Your task to perform on an android device: Go to sound settings Image 0: 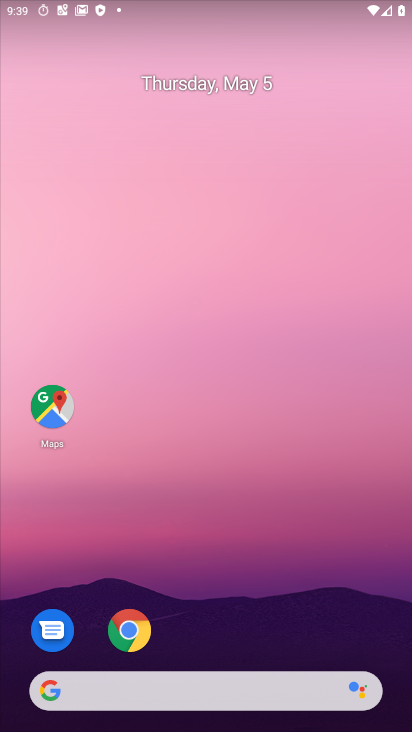
Step 0: drag from (207, 507) to (77, 162)
Your task to perform on an android device: Go to sound settings Image 1: 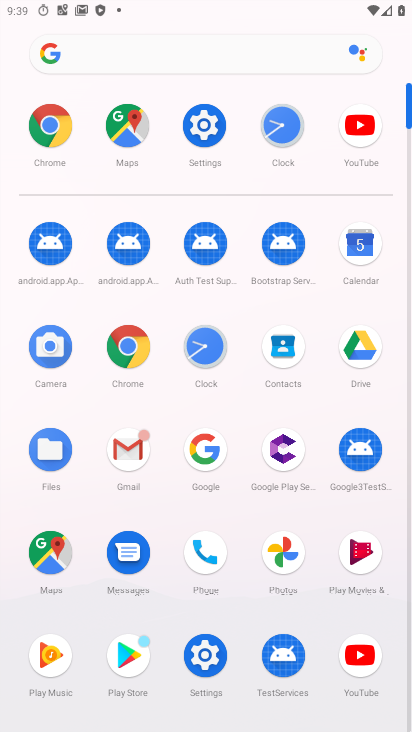
Step 1: click (211, 649)
Your task to perform on an android device: Go to sound settings Image 2: 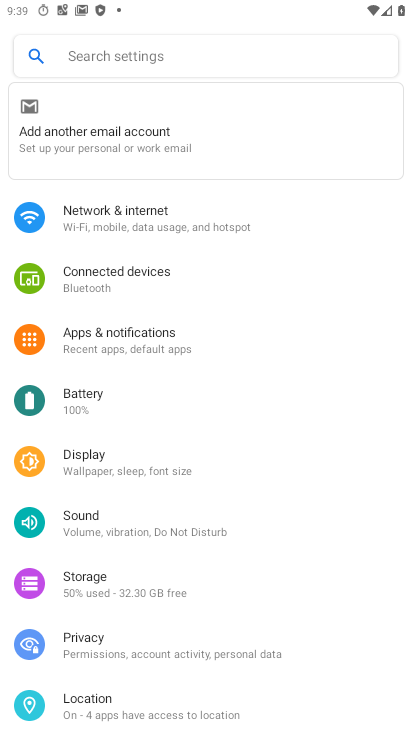
Step 2: click (92, 524)
Your task to perform on an android device: Go to sound settings Image 3: 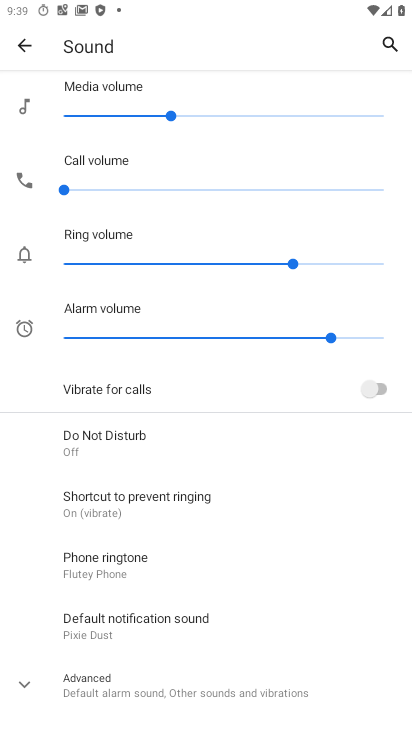
Step 3: drag from (253, 584) to (225, 130)
Your task to perform on an android device: Go to sound settings Image 4: 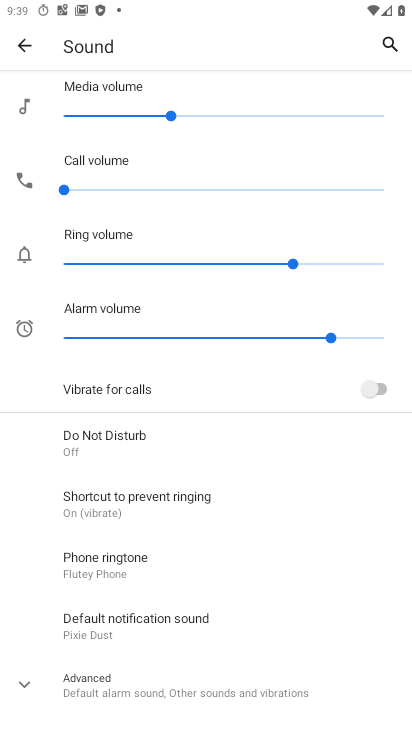
Step 4: click (96, 688)
Your task to perform on an android device: Go to sound settings Image 5: 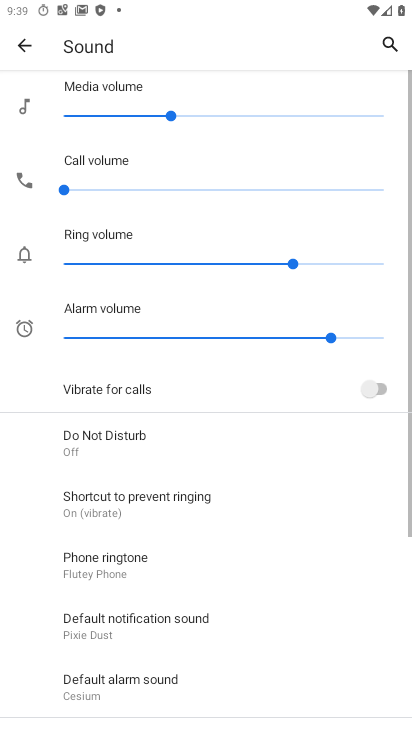
Step 5: task complete